Your task to perform on an android device: Open the music app Image 0: 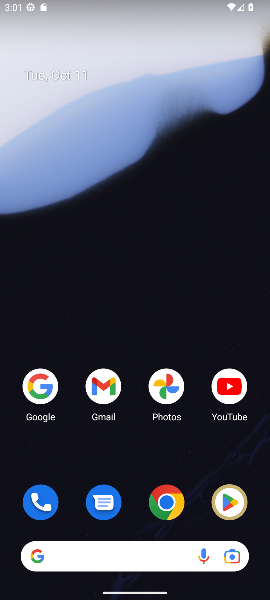
Step 0: drag from (138, 455) to (109, 165)
Your task to perform on an android device: Open the music app Image 1: 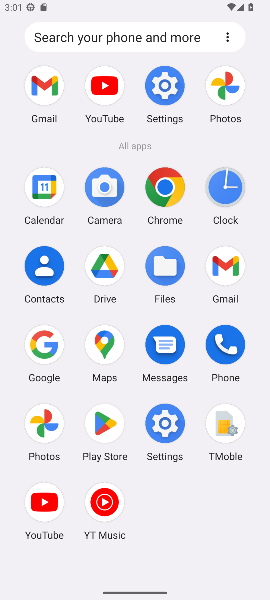
Step 1: click (105, 506)
Your task to perform on an android device: Open the music app Image 2: 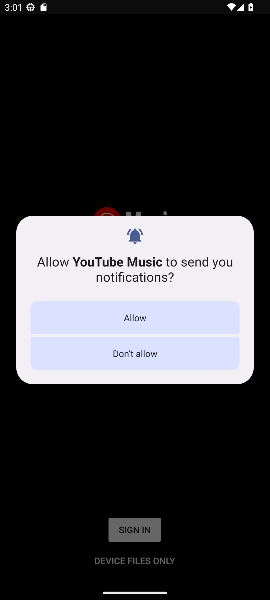
Step 2: click (134, 320)
Your task to perform on an android device: Open the music app Image 3: 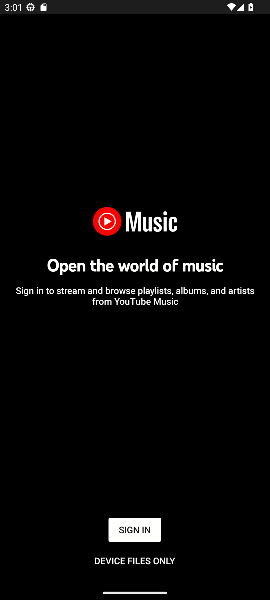
Step 3: click (140, 562)
Your task to perform on an android device: Open the music app Image 4: 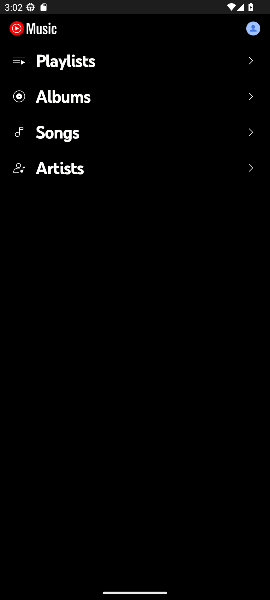
Step 4: task complete